Your task to perform on an android device: Open Google Chrome Image 0: 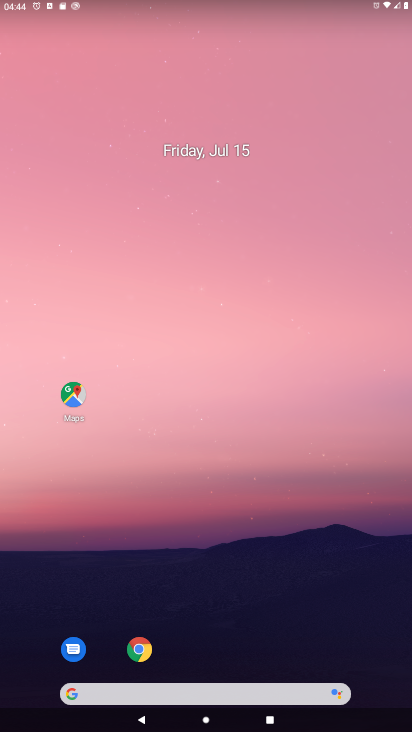
Step 0: click (140, 649)
Your task to perform on an android device: Open Google Chrome Image 1: 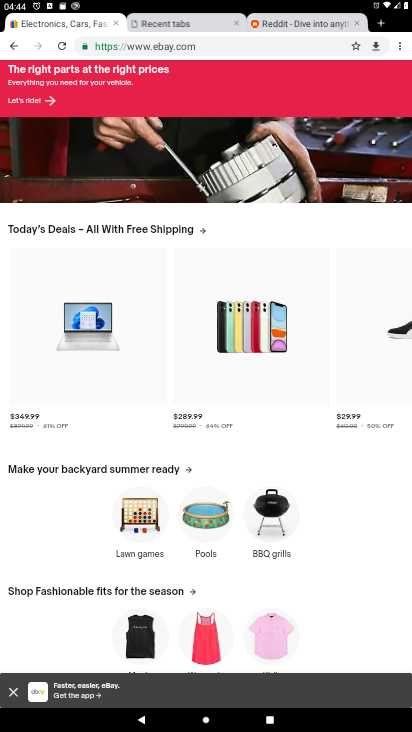
Step 1: task complete